Your task to perform on an android device: turn on the 24-hour format for clock Image 0: 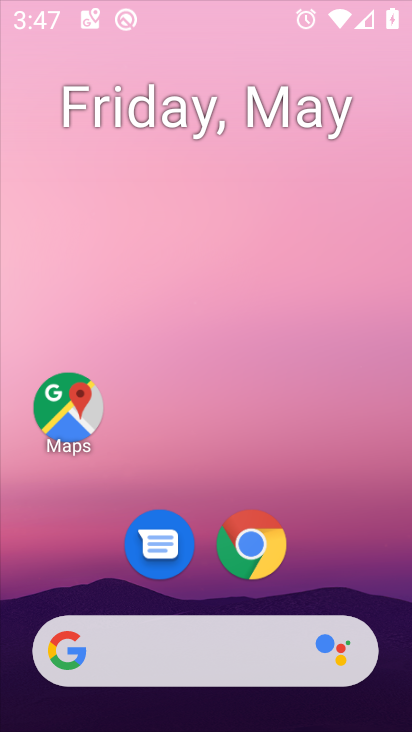
Step 0: click (196, 7)
Your task to perform on an android device: turn on the 24-hour format for clock Image 1: 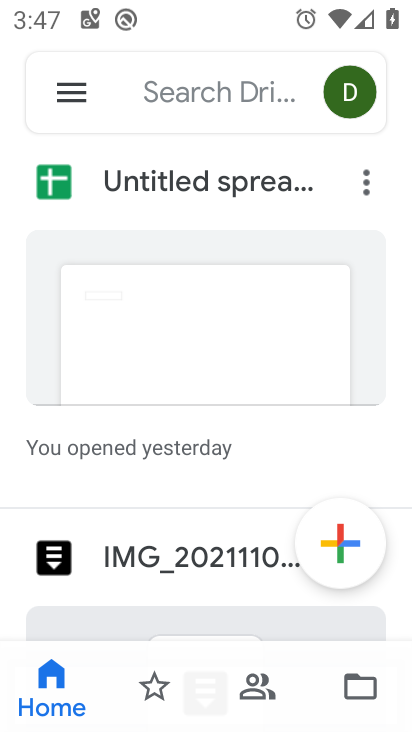
Step 1: press back button
Your task to perform on an android device: turn on the 24-hour format for clock Image 2: 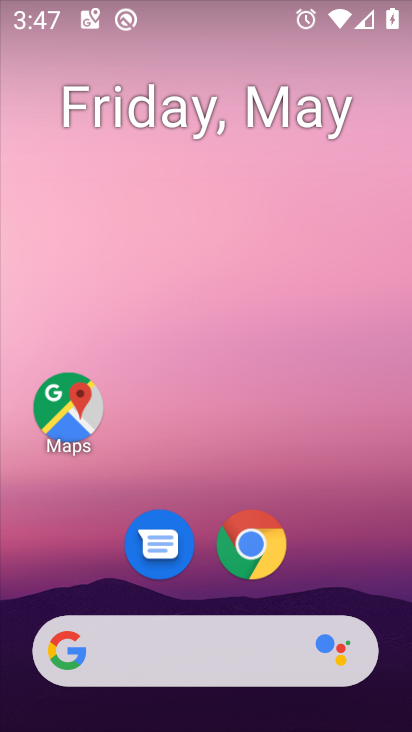
Step 2: drag from (244, 707) to (145, 35)
Your task to perform on an android device: turn on the 24-hour format for clock Image 3: 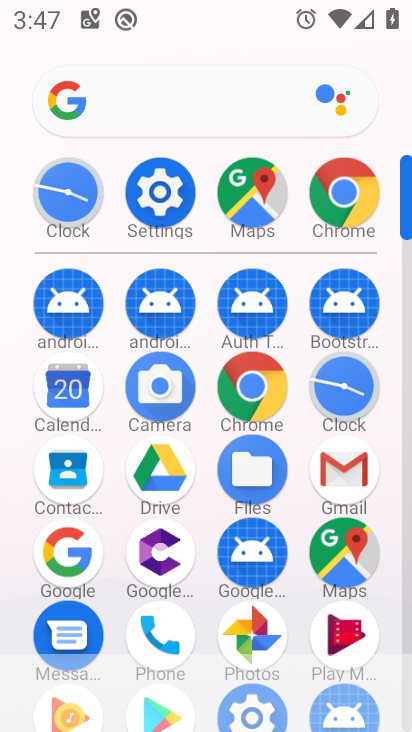
Step 3: click (342, 377)
Your task to perform on an android device: turn on the 24-hour format for clock Image 4: 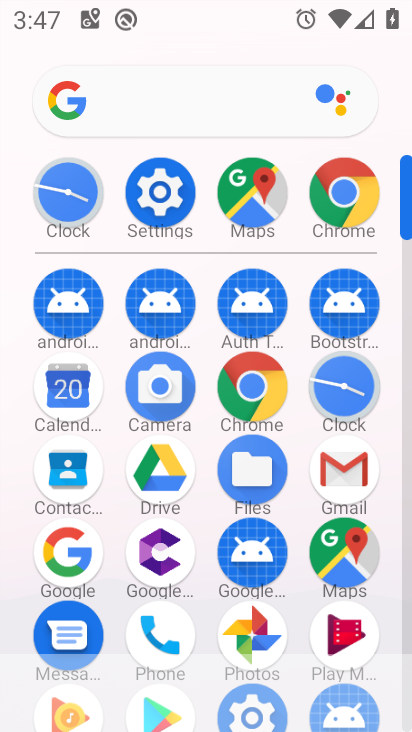
Step 4: click (342, 377)
Your task to perform on an android device: turn on the 24-hour format for clock Image 5: 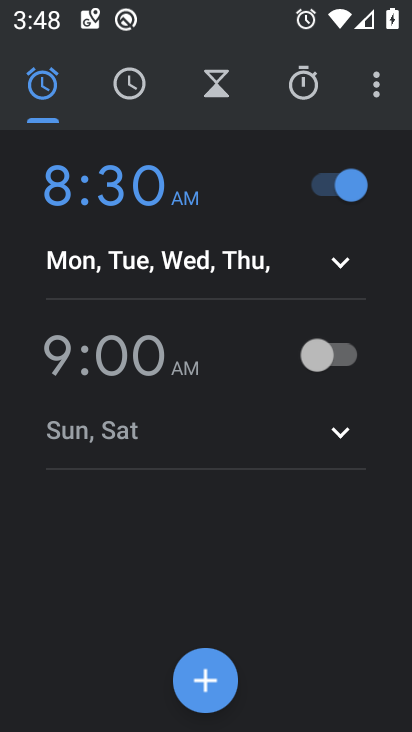
Step 5: click (374, 99)
Your task to perform on an android device: turn on the 24-hour format for clock Image 6: 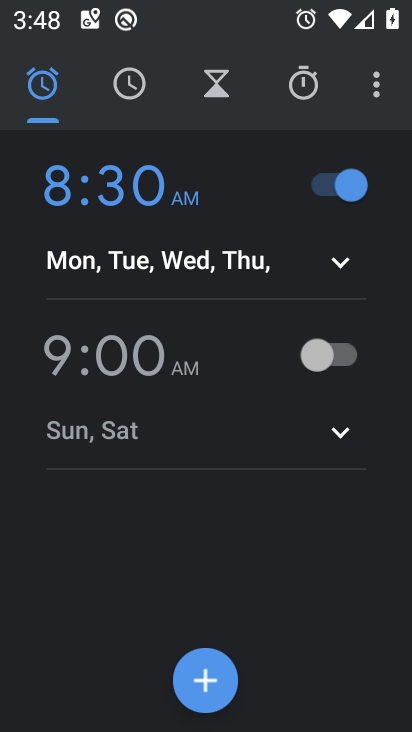
Step 6: click (372, 94)
Your task to perform on an android device: turn on the 24-hour format for clock Image 7: 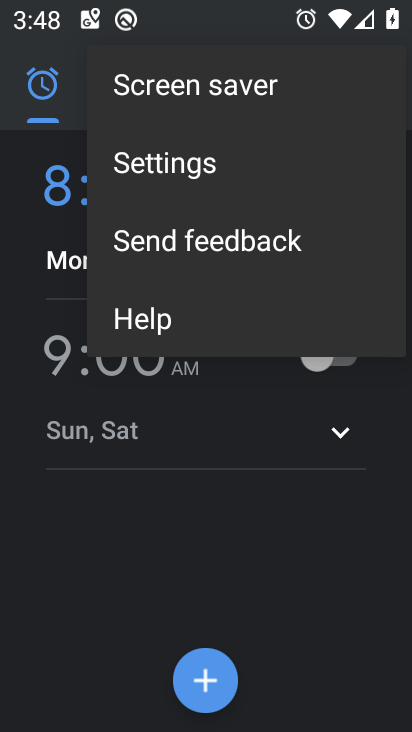
Step 7: click (166, 157)
Your task to perform on an android device: turn on the 24-hour format for clock Image 8: 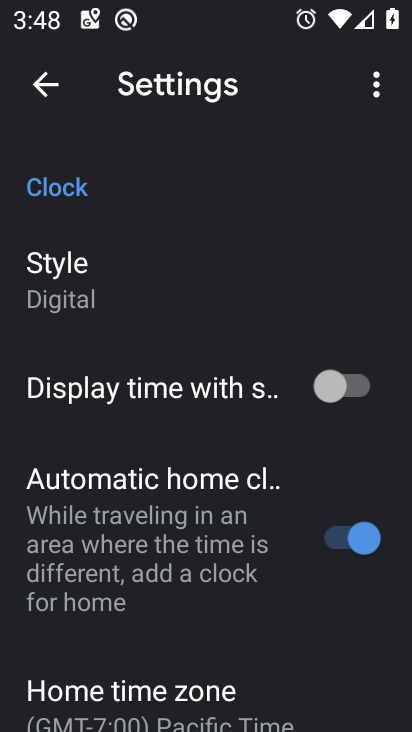
Step 8: drag from (180, 589) to (121, 271)
Your task to perform on an android device: turn on the 24-hour format for clock Image 9: 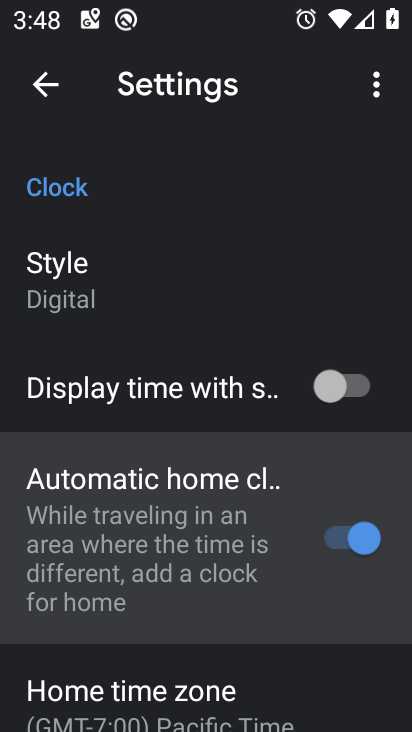
Step 9: drag from (183, 526) to (156, 86)
Your task to perform on an android device: turn on the 24-hour format for clock Image 10: 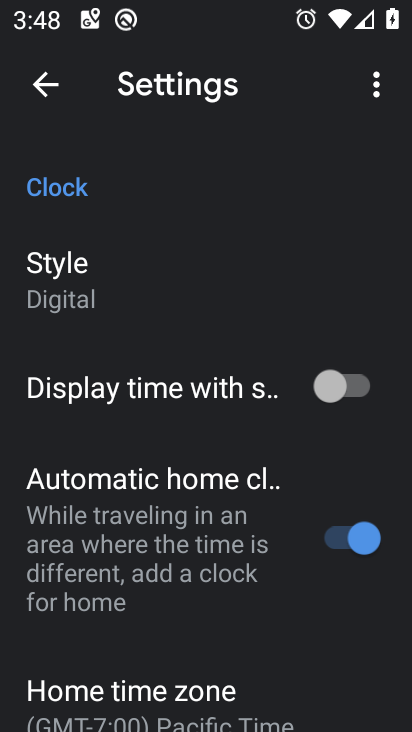
Step 10: drag from (206, 482) to (195, 169)
Your task to perform on an android device: turn on the 24-hour format for clock Image 11: 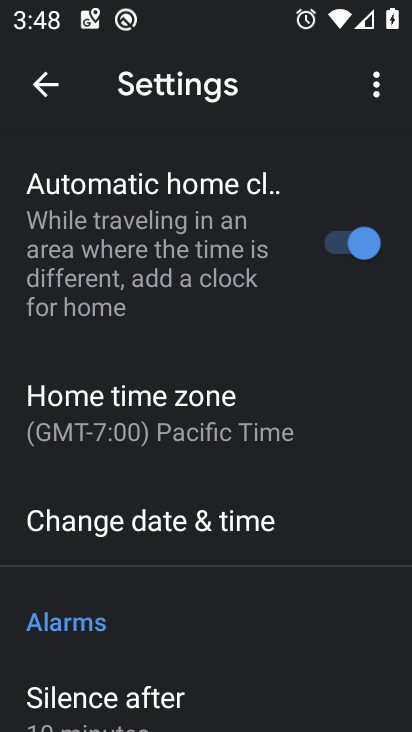
Step 11: drag from (236, 589) to (237, 155)
Your task to perform on an android device: turn on the 24-hour format for clock Image 12: 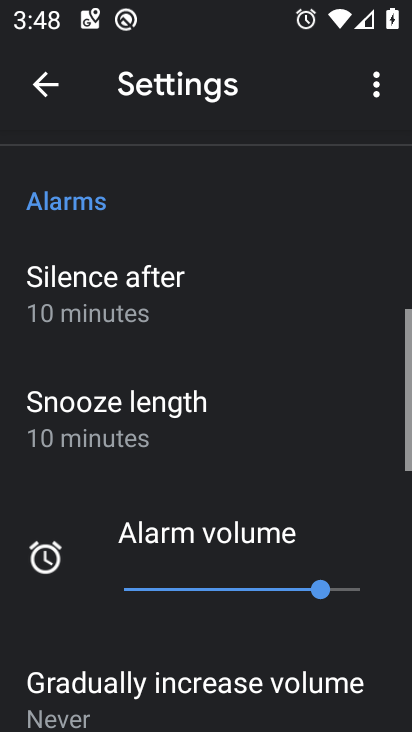
Step 12: drag from (226, 481) to (128, 129)
Your task to perform on an android device: turn on the 24-hour format for clock Image 13: 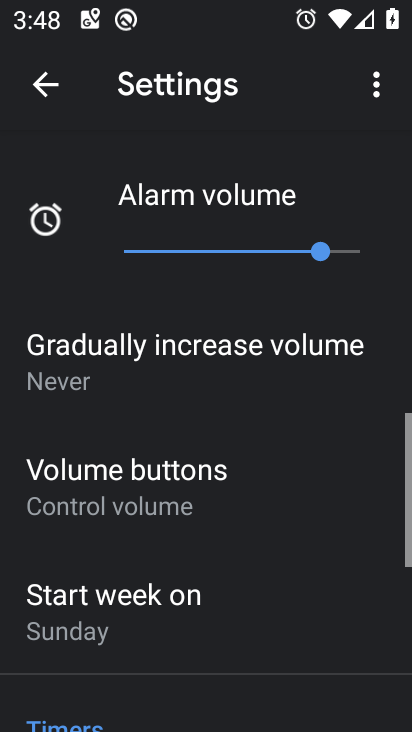
Step 13: drag from (111, 450) to (69, 8)
Your task to perform on an android device: turn on the 24-hour format for clock Image 14: 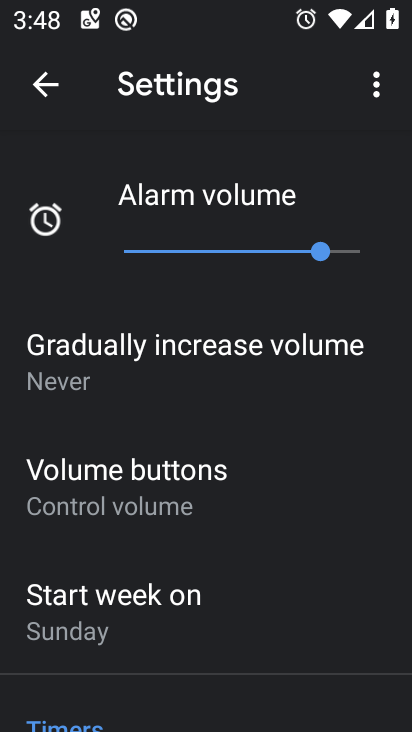
Step 14: drag from (154, 415) to (106, 173)
Your task to perform on an android device: turn on the 24-hour format for clock Image 15: 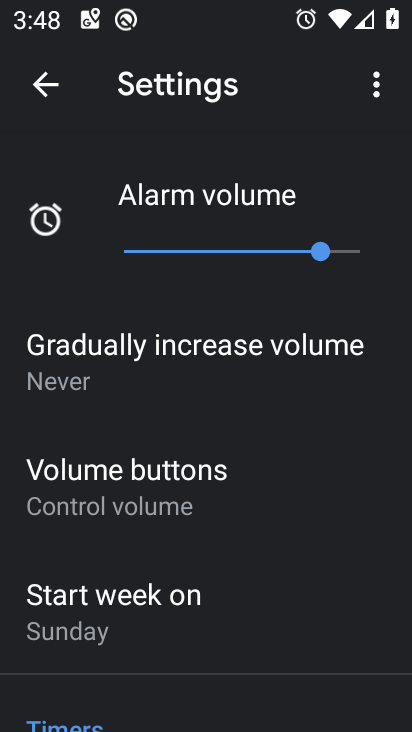
Step 15: drag from (119, 438) to (4, 103)
Your task to perform on an android device: turn on the 24-hour format for clock Image 16: 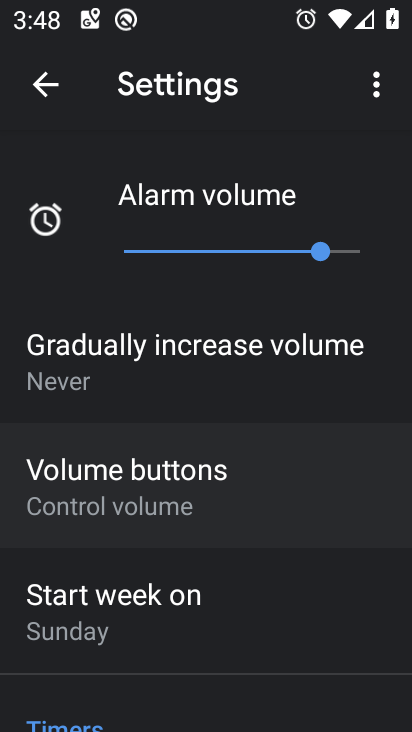
Step 16: drag from (103, 457) to (41, 71)
Your task to perform on an android device: turn on the 24-hour format for clock Image 17: 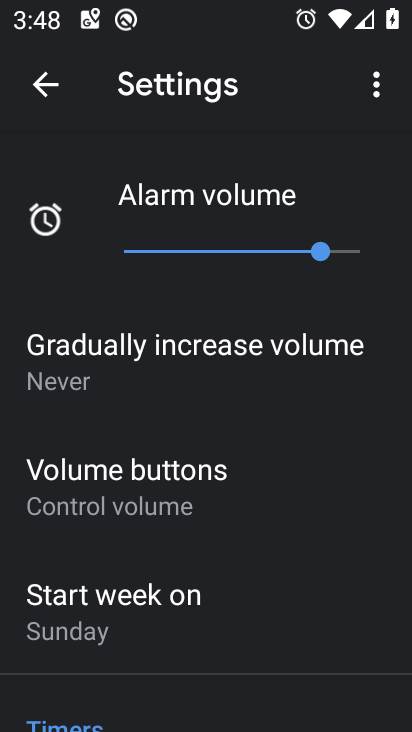
Step 17: drag from (131, 486) to (70, 188)
Your task to perform on an android device: turn on the 24-hour format for clock Image 18: 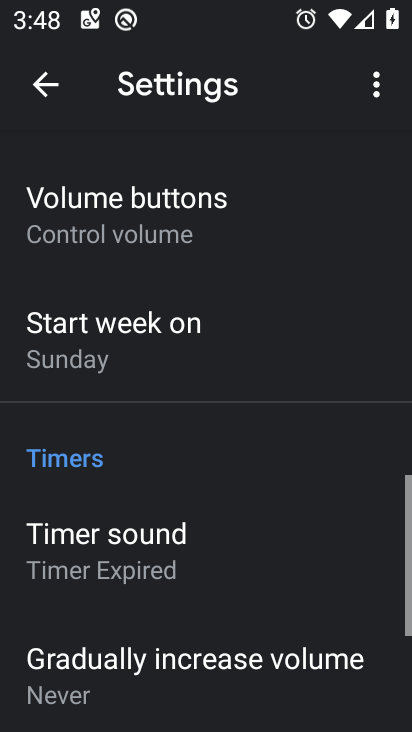
Step 18: drag from (133, 457) to (129, 184)
Your task to perform on an android device: turn on the 24-hour format for clock Image 19: 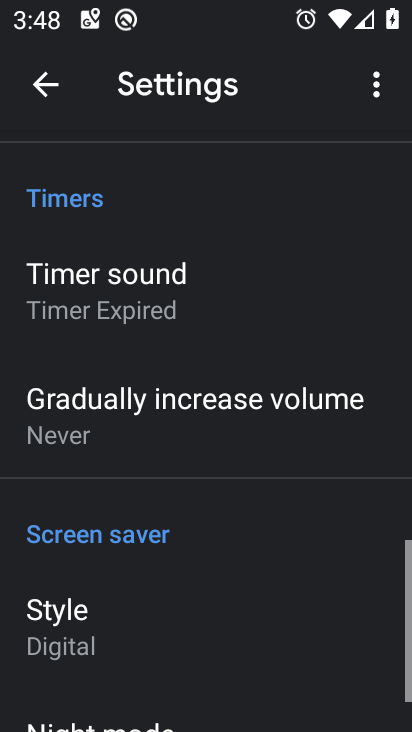
Step 19: drag from (189, 509) to (171, 165)
Your task to perform on an android device: turn on the 24-hour format for clock Image 20: 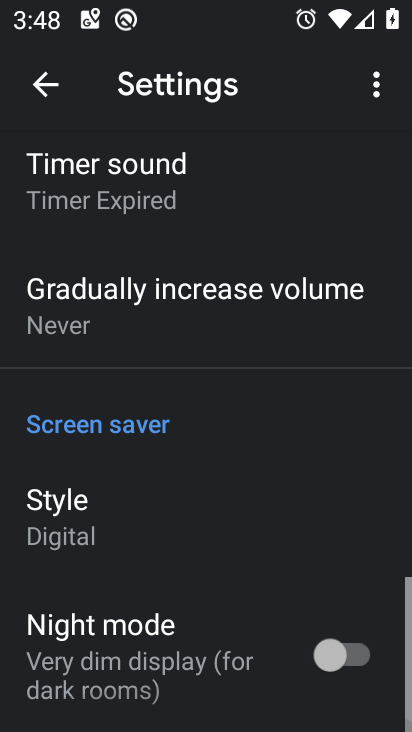
Step 20: drag from (217, 564) to (177, 251)
Your task to perform on an android device: turn on the 24-hour format for clock Image 21: 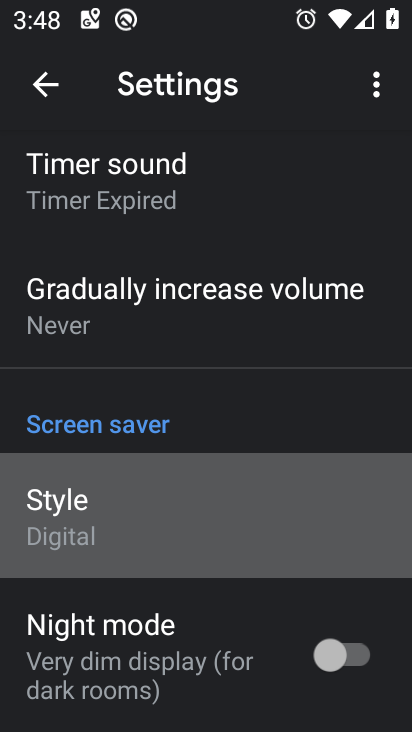
Step 21: drag from (144, 584) to (97, 68)
Your task to perform on an android device: turn on the 24-hour format for clock Image 22: 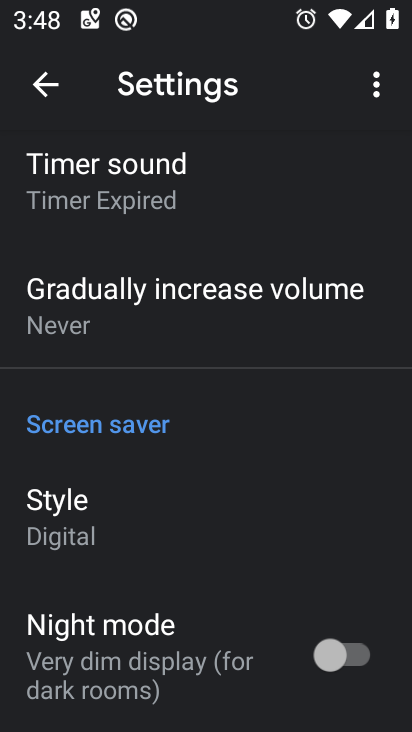
Step 22: drag from (120, 521) to (75, 239)
Your task to perform on an android device: turn on the 24-hour format for clock Image 23: 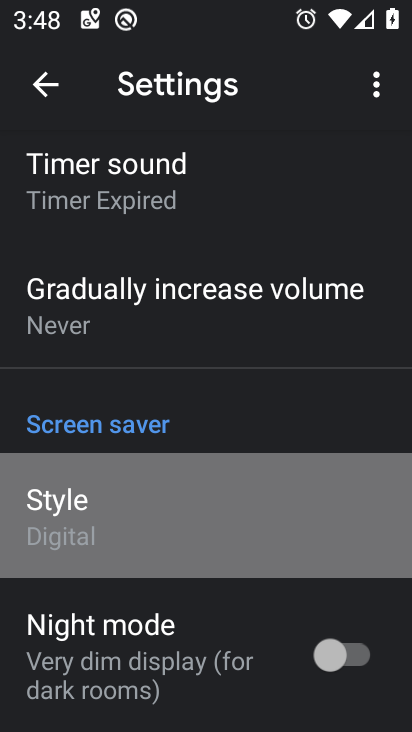
Step 23: drag from (128, 558) to (157, 214)
Your task to perform on an android device: turn on the 24-hour format for clock Image 24: 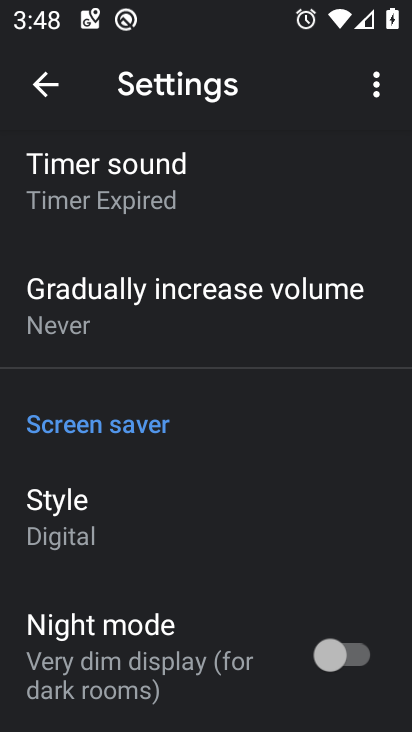
Step 24: drag from (195, 627) to (205, 60)
Your task to perform on an android device: turn on the 24-hour format for clock Image 25: 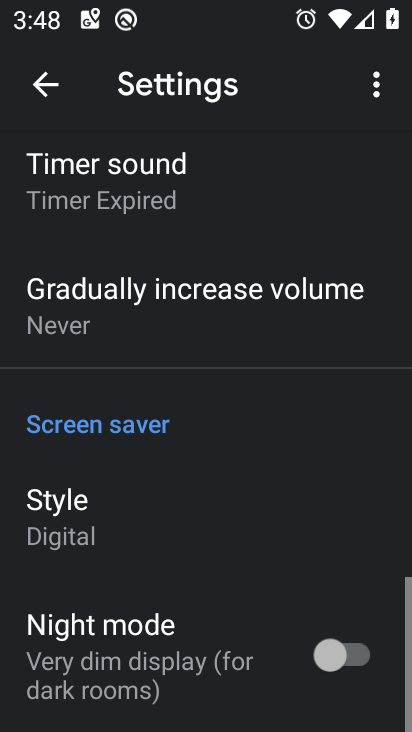
Step 25: drag from (148, 486) to (129, 132)
Your task to perform on an android device: turn on the 24-hour format for clock Image 26: 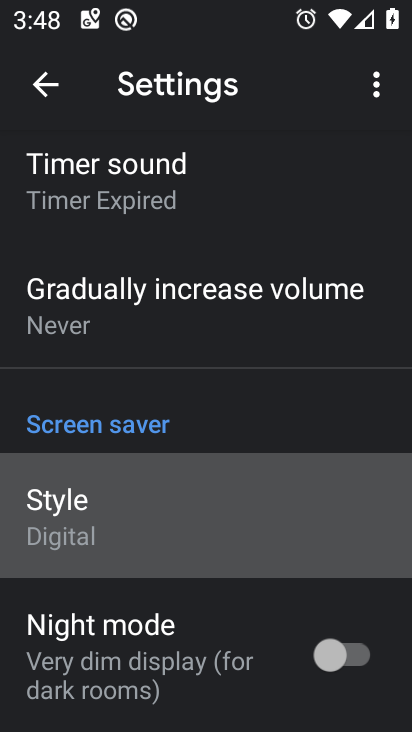
Step 26: drag from (152, 465) to (113, 206)
Your task to perform on an android device: turn on the 24-hour format for clock Image 27: 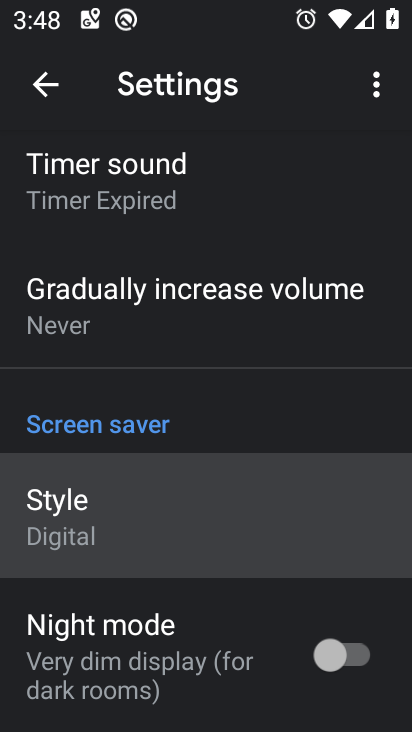
Step 27: drag from (106, 392) to (77, 92)
Your task to perform on an android device: turn on the 24-hour format for clock Image 28: 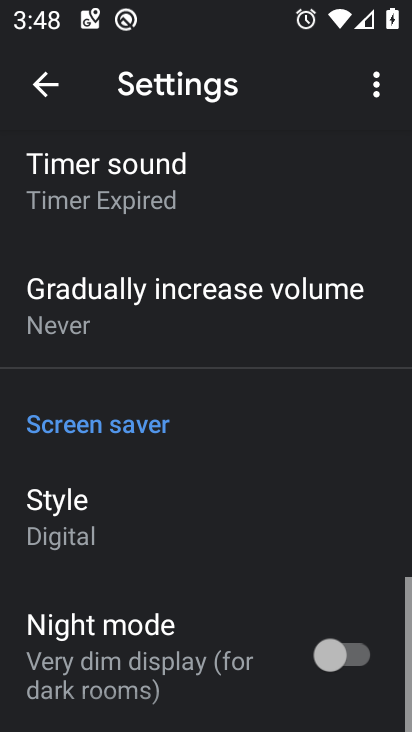
Step 28: drag from (91, 521) to (53, 144)
Your task to perform on an android device: turn on the 24-hour format for clock Image 29: 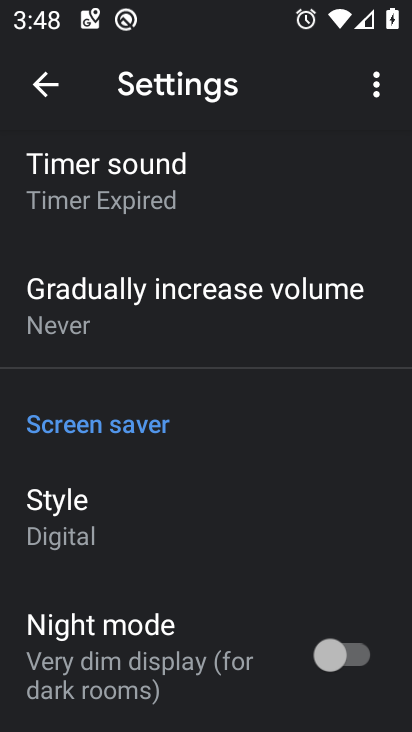
Step 29: drag from (211, 513) to (153, 205)
Your task to perform on an android device: turn on the 24-hour format for clock Image 30: 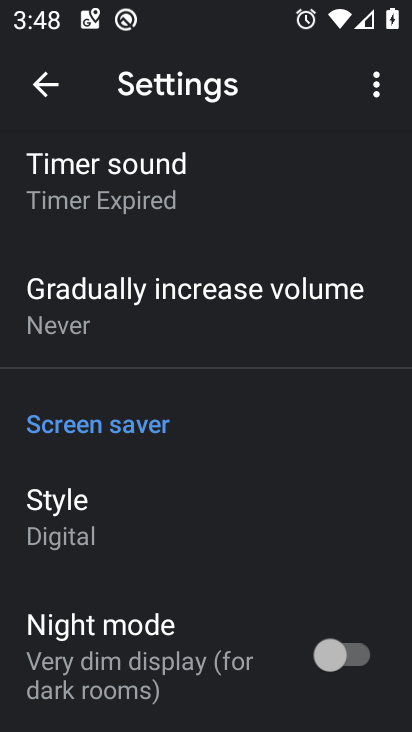
Step 30: drag from (136, 584) to (61, 109)
Your task to perform on an android device: turn on the 24-hour format for clock Image 31: 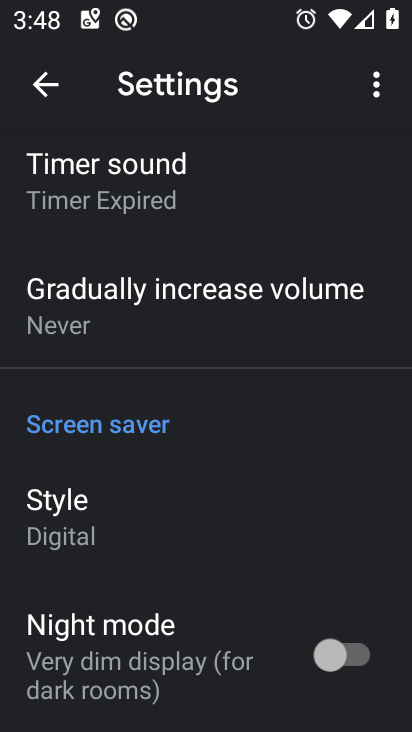
Step 31: drag from (116, 386) to (89, 1)
Your task to perform on an android device: turn on the 24-hour format for clock Image 32: 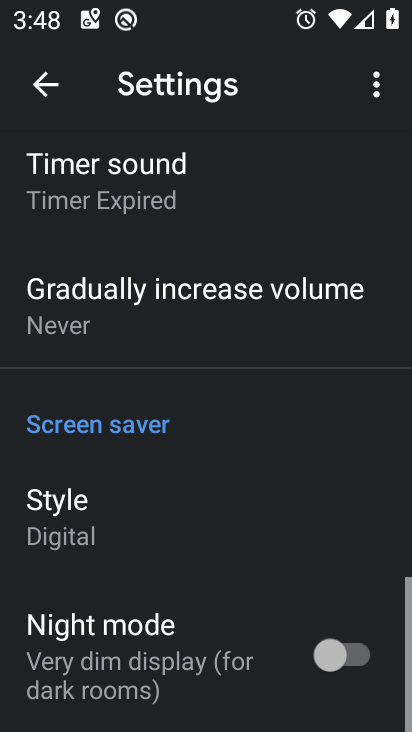
Step 32: drag from (55, 507) to (43, 81)
Your task to perform on an android device: turn on the 24-hour format for clock Image 33: 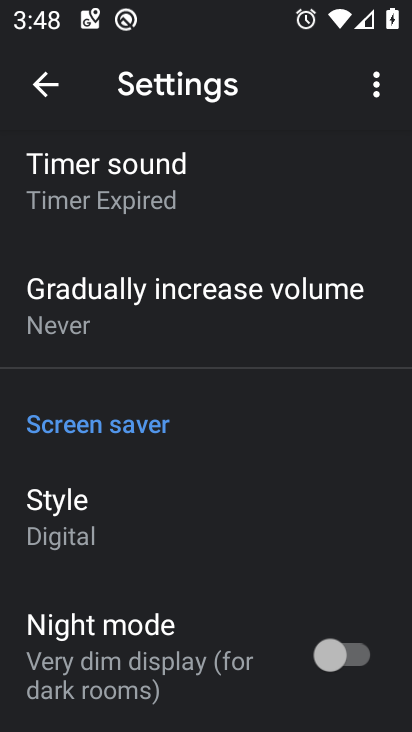
Step 33: drag from (39, 525) to (7, 97)
Your task to perform on an android device: turn on the 24-hour format for clock Image 34: 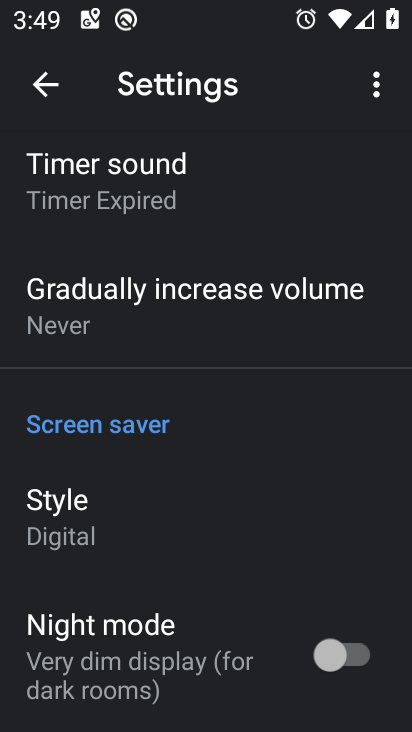
Step 34: drag from (132, 566) to (74, 323)
Your task to perform on an android device: turn on the 24-hour format for clock Image 35: 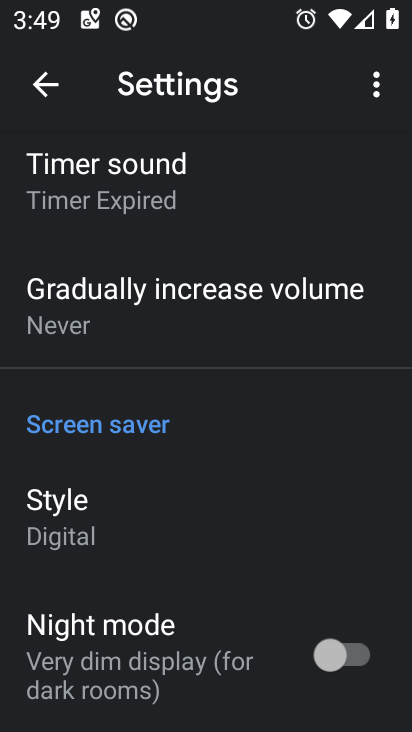
Step 35: drag from (73, 321) to (137, 532)
Your task to perform on an android device: turn on the 24-hour format for clock Image 36: 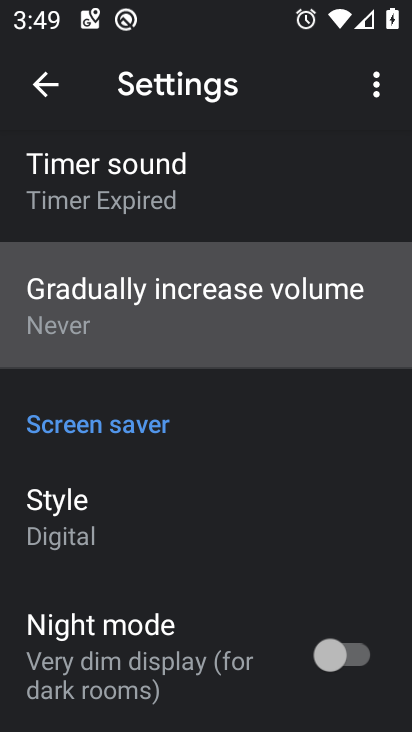
Step 36: drag from (122, 222) to (183, 522)
Your task to perform on an android device: turn on the 24-hour format for clock Image 37: 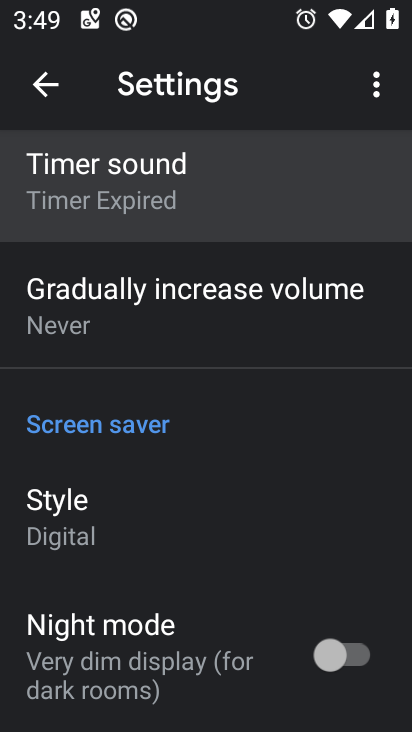
Step 37: drag from (166, 246) to (175, 434)
Your task to perform on an android device: turn on the 24-hour format for clock Image 38: 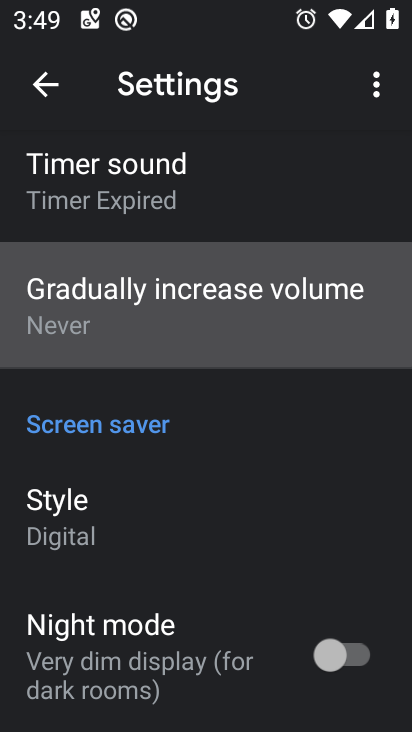
Step 38: drag from (166, 226) to (168, 515)
Your task to perform on an android device: turn on the 24-hour format for clock Image 39: 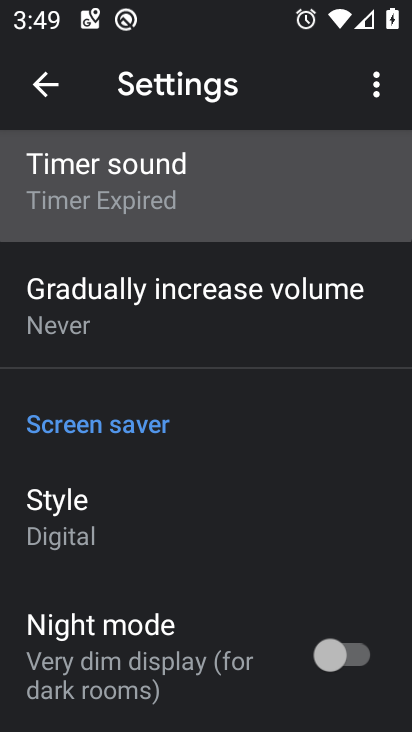
Step 39: drag from (95, 132) to (126, 577)
Your task to perform on an android device: turn on the 24-hour format for clock Image 40: 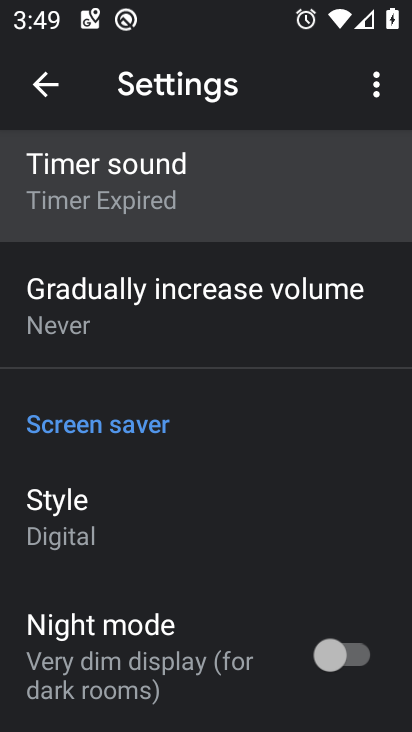
Step 40: drag from (151, 273) to (142, 539)
Your task to perform on an android device: turn on the 24-hour format for clock Image 41: 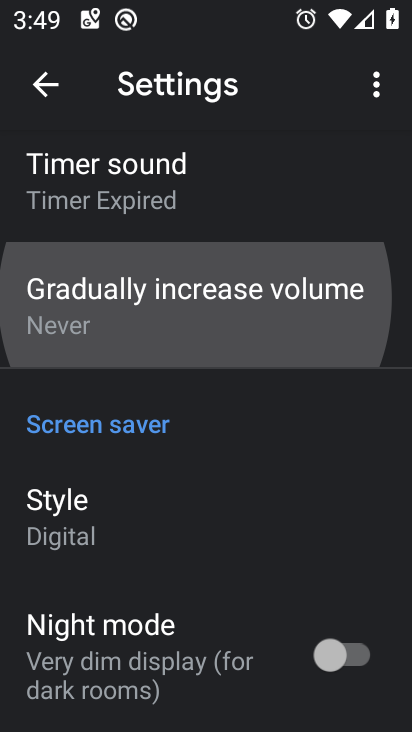
Step 41: drag from (69, 169) to (221, 552)
Your task to perform on an android device: turn on the 24-hour format for clock Image 42: 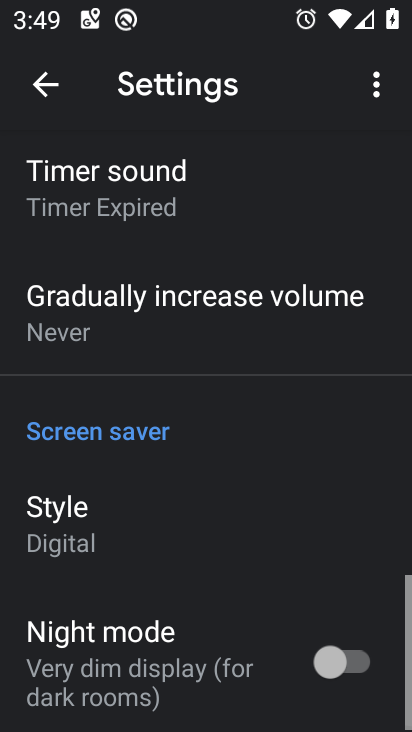
Step 42: drag from (209, 173) to (176, 568)
Your task to perform on an android device: turn on the 24-hour format for clock Image 43: 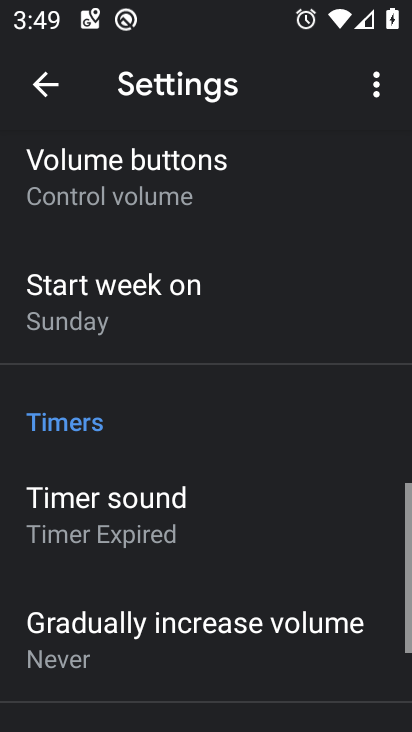
Step 43: drag from (146, 308) to (187, 599)
Your task to perform on an android device: turn on the 24-hour format for clock Image 44: 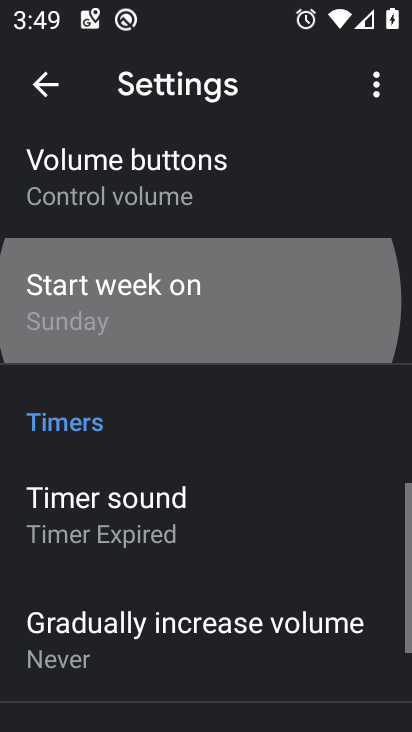
Step 44: drag from (179, 325) to (199, 727)
Your task to perform on an android device: turn on the 24-hour format for clock Image 45: 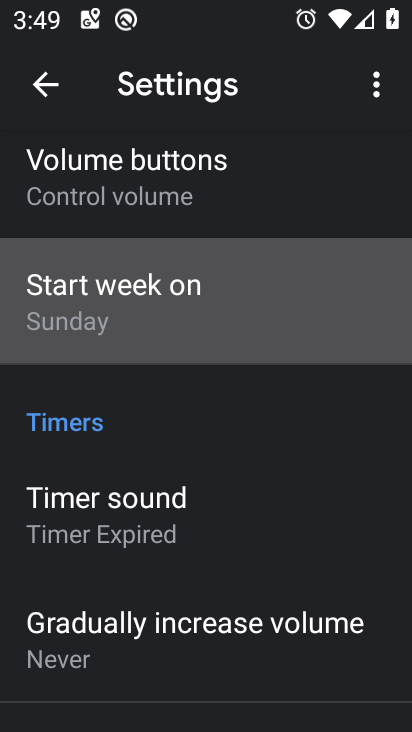
Step 45: drag from (114, 241) to (132, 637)
Your task to perform on an android device: turn on the 24-hour format for clock Image 46: 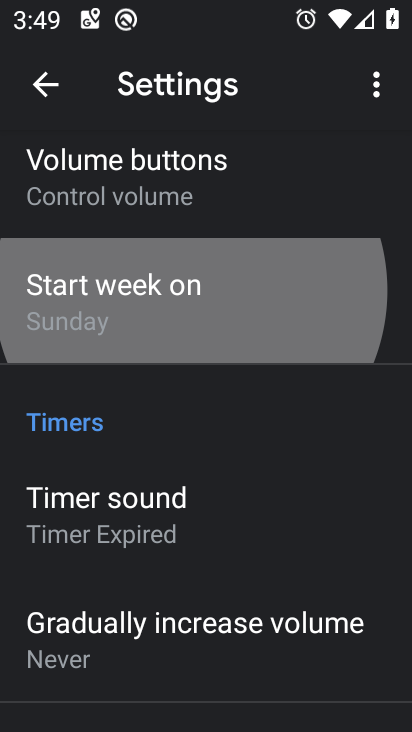
Step 46: drag from (110, 149) to (121, 636)
Your task to perform on an android device: turn on the 24-hour format for clock Image 47: 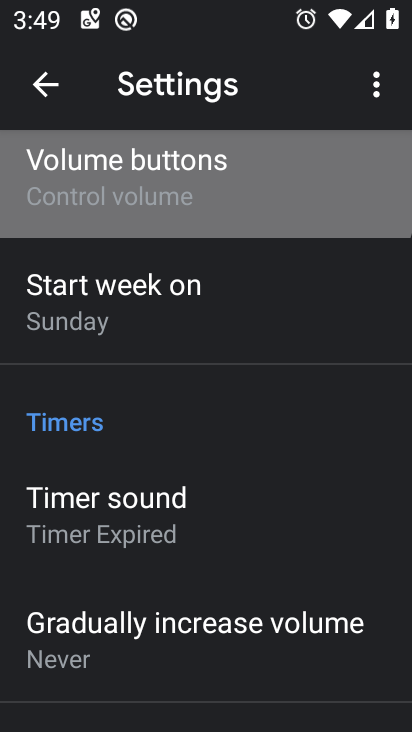
Step 47: drag from (156, 263) to (142, 525)
Your task to perform on an android device: turn on the 24-hour format for clock Image 48: 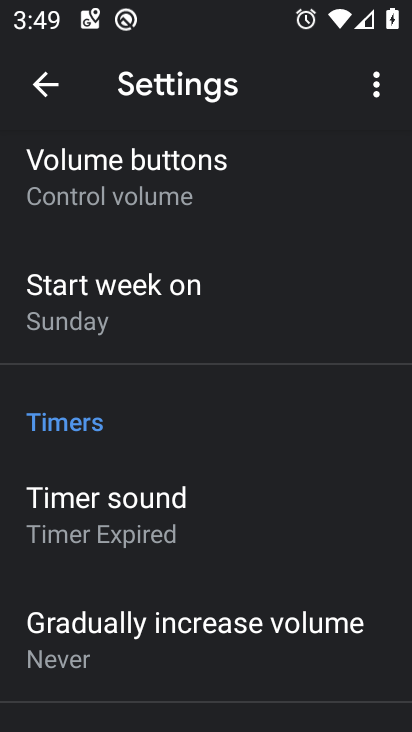
Step 48: drag from (155, 311) to (161, 578)
Your task to perform on an android device: turn on the 24-hour format for clock Image 49: 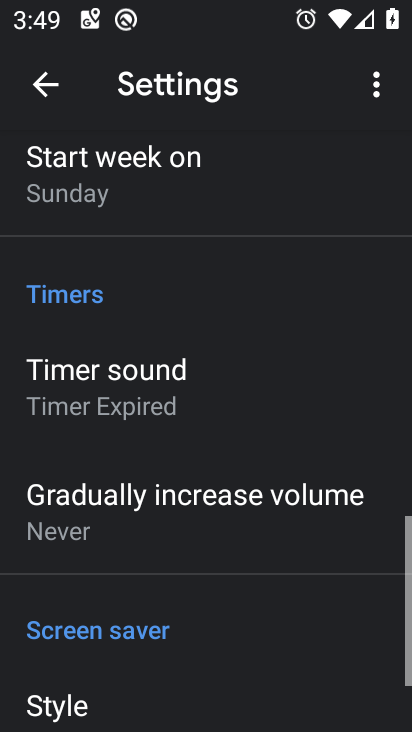
Step 49: drag from (88, 373) to (130, 645)
Your task to perform on an android device: turn on the 24-hour format for clock Image 50: 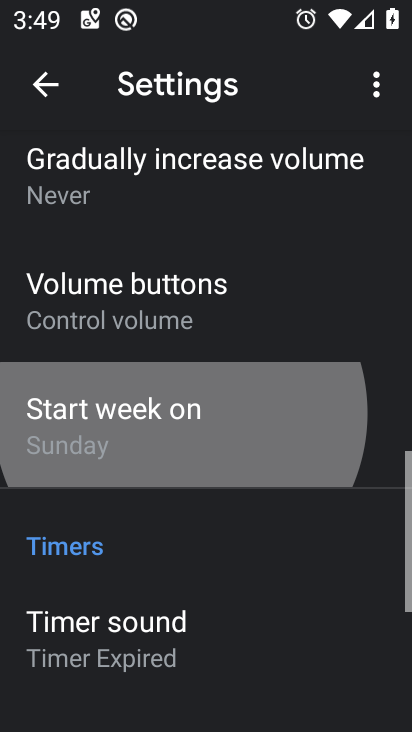
Step 50: drag from (124, 318) to (148, 524)
Your task to perform on an android device: turn on the 24-hour format for clock Image 51: 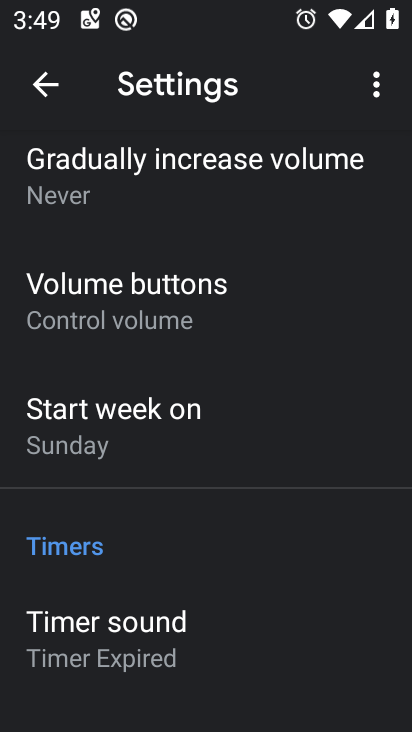
Step 51: drag from (123, 318) to (145, 491)
Your task to perform on an android device: turn on the 24-hour format for clock Image 52: 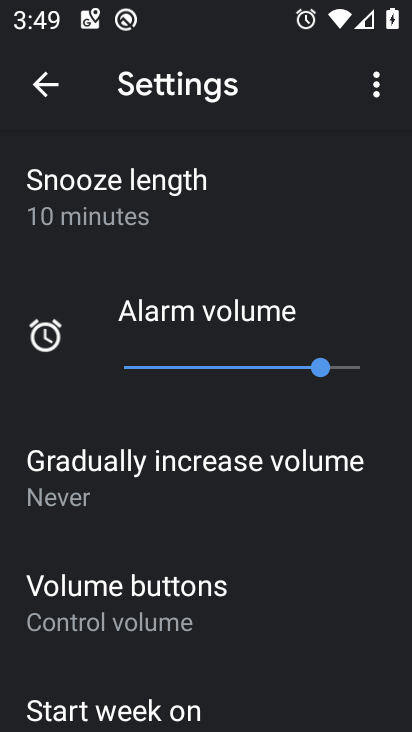
Step 52: drag from (99, 304) to (157, 537)
Your task to perform on an android device: turn on the 24-hour format for clock Image 53: 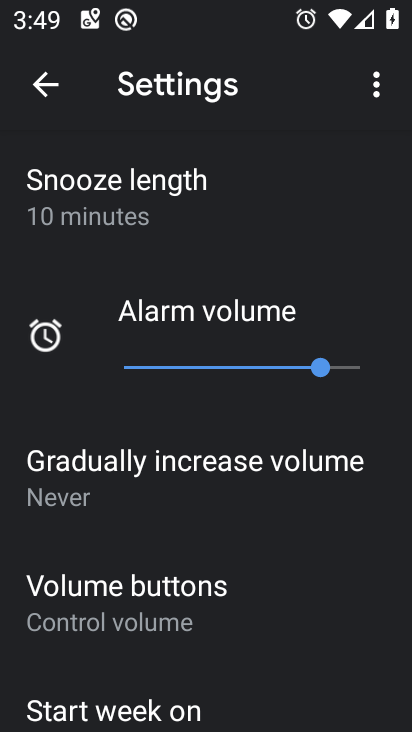
Step 53: drag from (106, 280) to (155, 464)
Your task to perform on an android device: turn on the 24-hour format for clock Image 54: 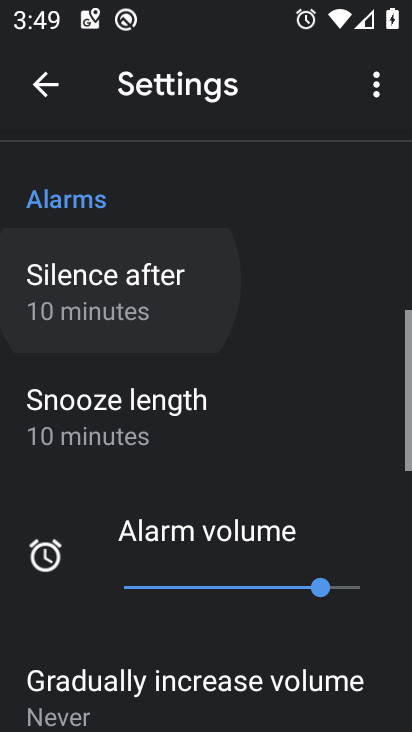
Step 54: drag from (115, 214) to (128, 358)
Your task to perform on an android device: turn on the 24-hour format for clock Image 55: 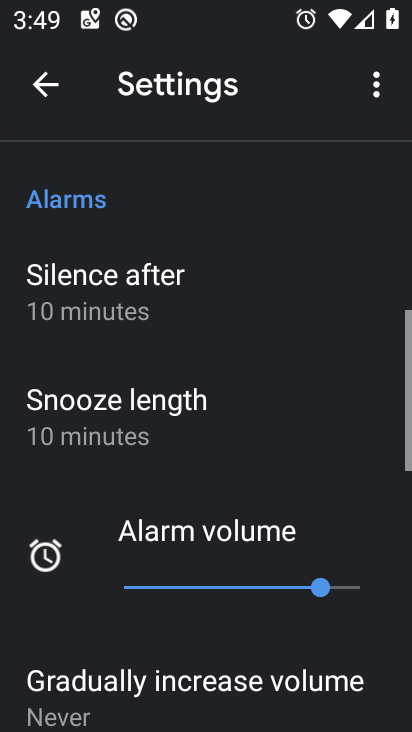
Step 55: drag from (53, 203) to (119, 598)
Your task to perform on an android device: turn on the 24-hour format for clock Image 56: 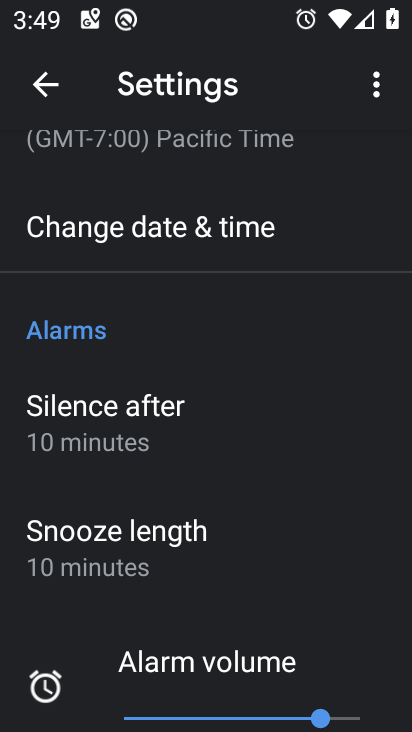
Step 56: click (147, 228)
Your task to perform on an android device: turn on the 24-hour format for clock Image 57: 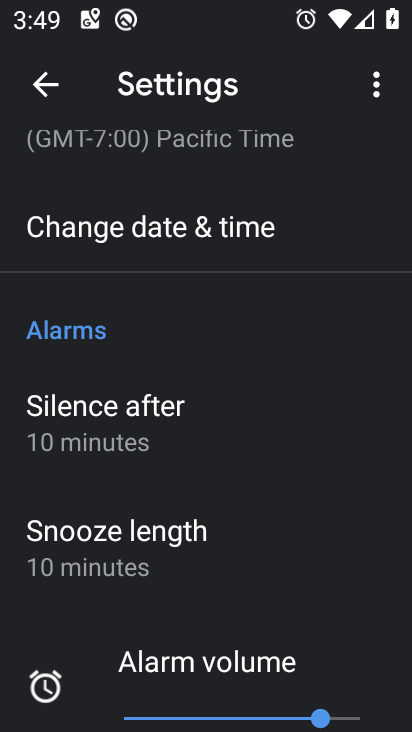
Step 57: click (147, 228)
Your task to perform on an android device: turn on the 24-hour format for clock Image 58: 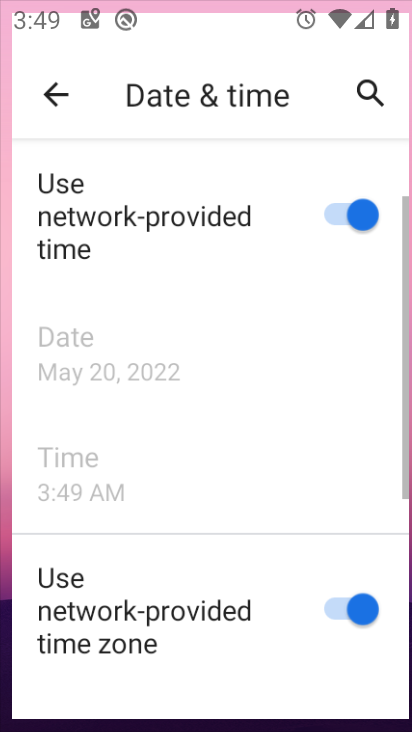
Step 58: click (154, 234)
Your task to perform on an android device: turn on the 24-hour format for clock Image 59: 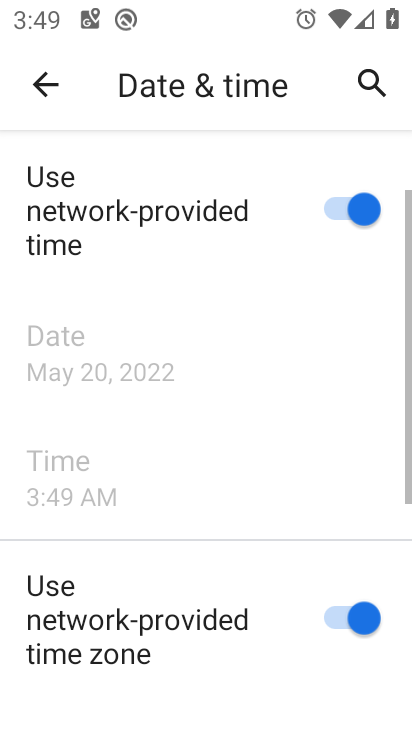
Step 59: click (155, 213)
Your task to perform on an android device: turn on the 24-hour format for clock Image 60: 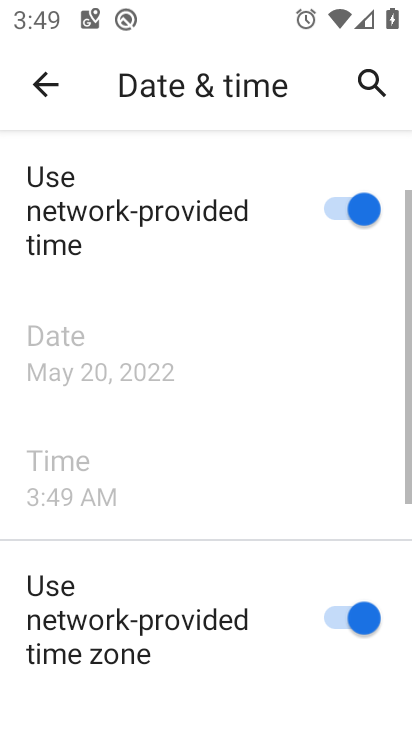
Step 60: drag from (206, 539) to (160, 70)
Your task to perform on an android device: turn on the 24-hour format for clock Image 61: 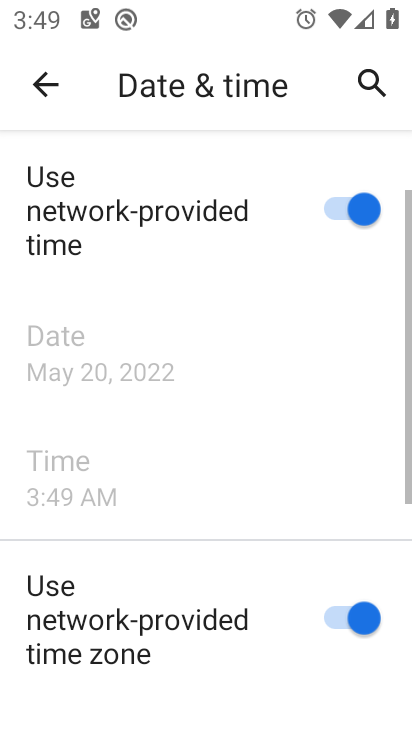
Step 61: drag from (205, 479) to (204, 86)
Your task to perform on an android device: turn on the 24-hour format for clock Image 62: 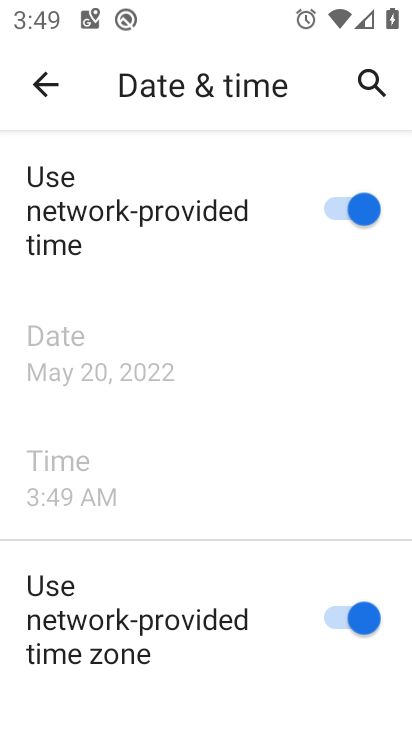
Step 62: drag from (250, 468) to (238, 24)
Your task to perform on an android device: turn on the 24-hour format for clock Image 63: 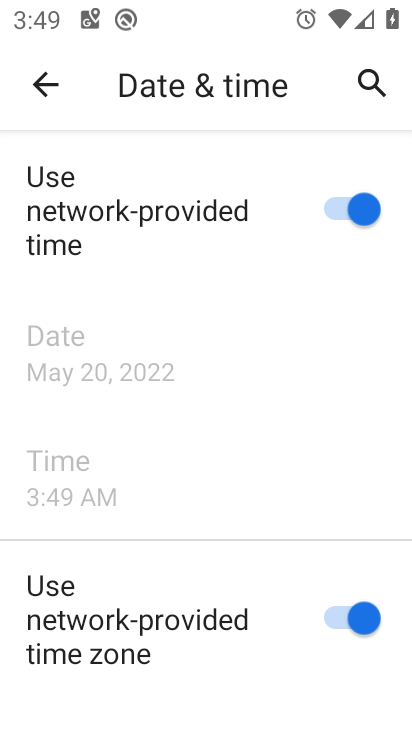
Step 63: drag from (188, 549) to (187, 12)
Your task to perform on an android device: turn on the 24-hour format for clock Image 64: 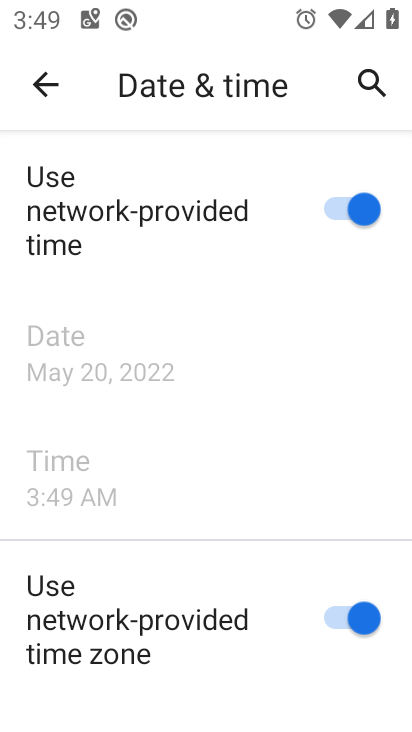
Step 64: drag from (206, 650) to (170, 64)
Your task to perform on an android device: turn on the 24-hour format for clock Image 65: 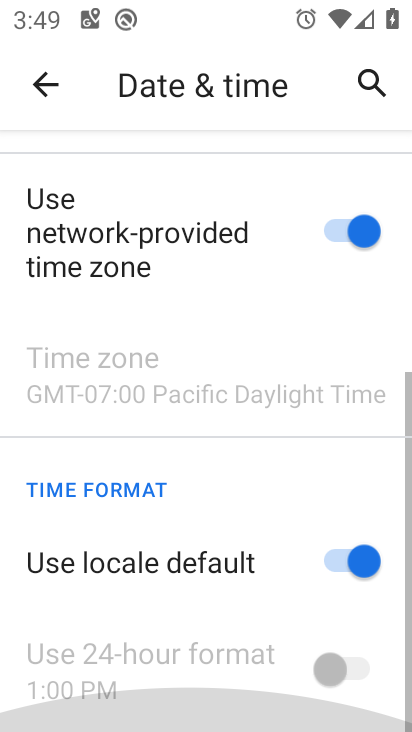
Step 65: drag from (190, 535) to (160, 69)
Your task to perform on an android device: turn on the 24-hour format for clock Image 66: 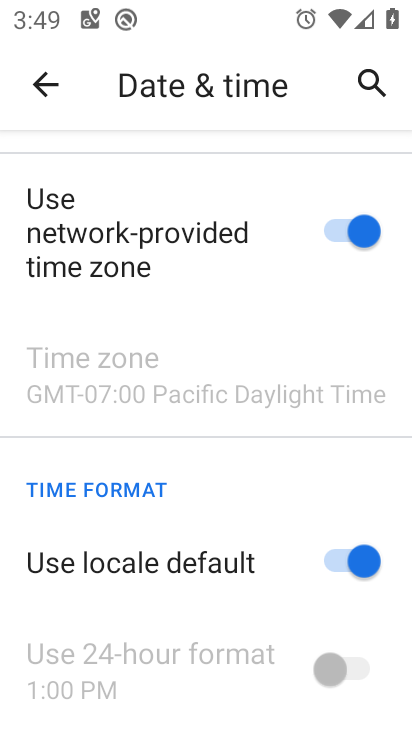
Step 66: click (364, 556)
Your task to perform on an android device: turn on the 24-hour format for clock Image 67: 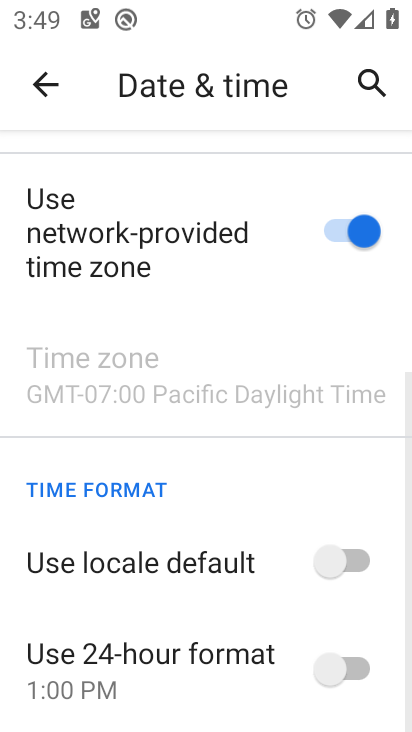
Step 67: click (324, 661)
Your task to perform on an android device: turn on the 24-hour format for clock Image 68: 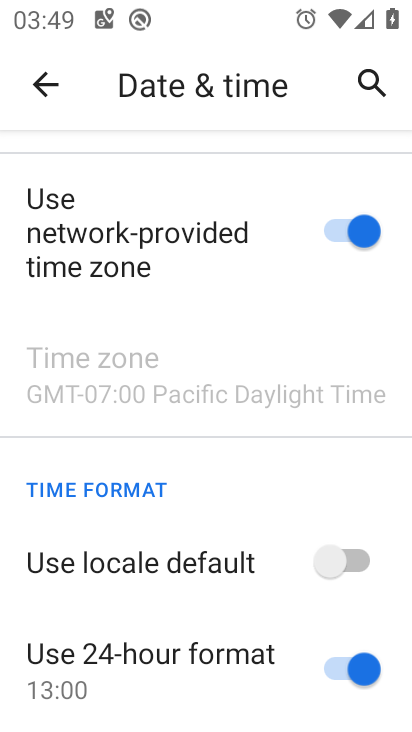
Step 68: task complete